Your task to perform on an android device: What's the weather? Image 0: 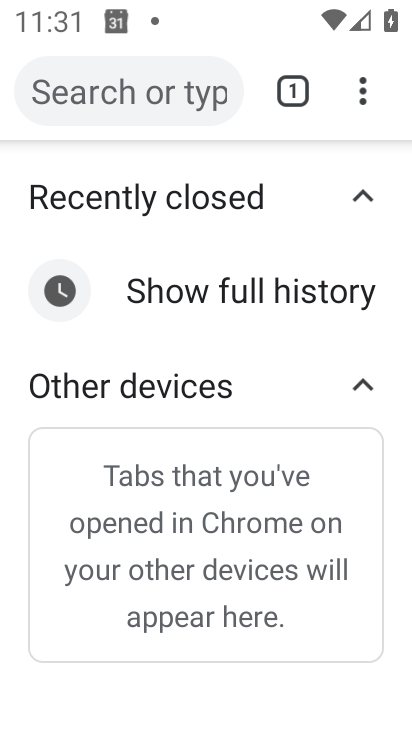
Step 0: drag from (208, 539) to (253, 4)
Your task to perform on an android device: What's the weather? Image 1: 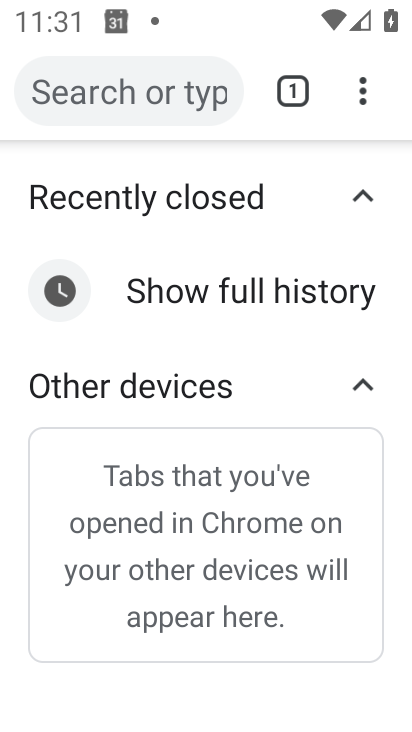
Step 1: press home button
Your task to perform on an android device: What's the weather? Image 2: 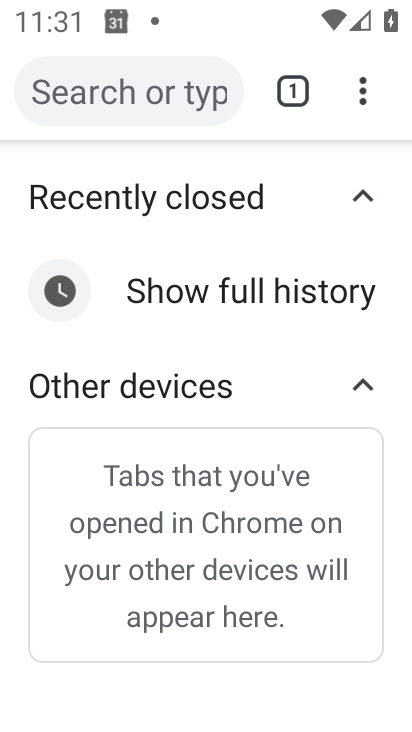
Step 2: drag from (253, 4) to (409, 728)
Your task to perform on an android device: What's the weather? Image 3: 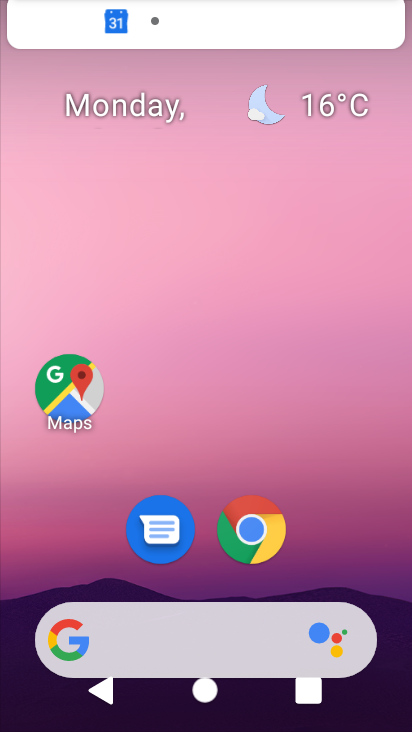
Step 3: drag from (221, 585) to (239, 164)
Your task to perform on an android device: What's the weather? Image 4: 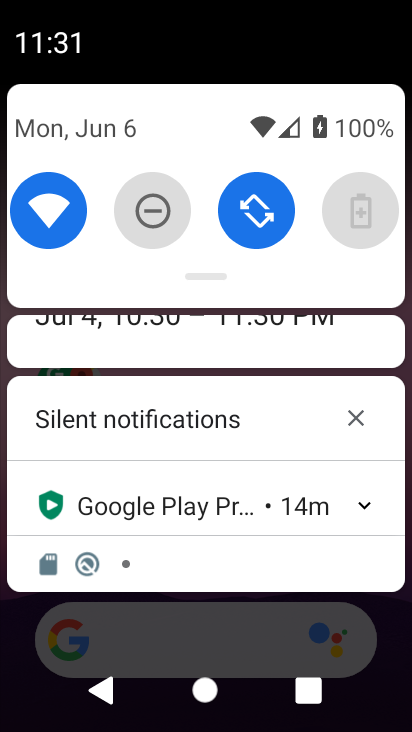
Step 4: click (261, 649)
Your task to perform on an android device: What's the weather? Image 5: 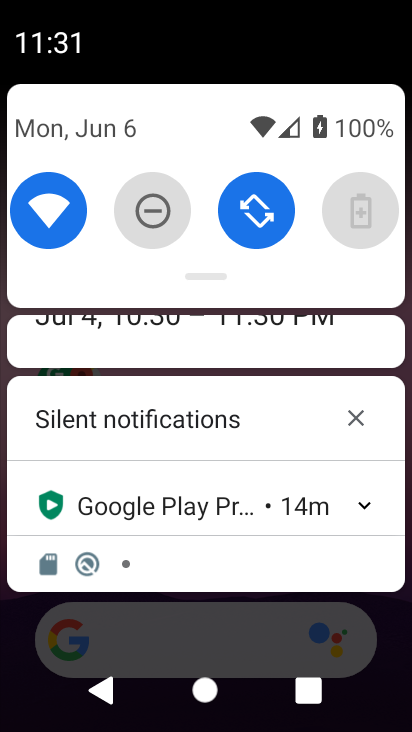
Step 5: press home button
Your task to perform on an android device: What's the weather? Image 6: 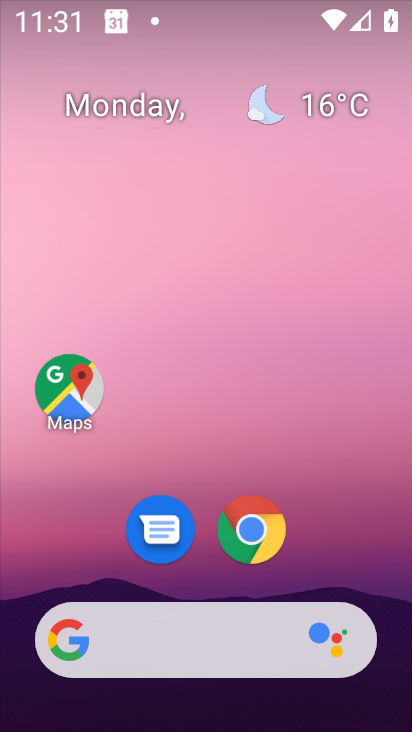
Step 6: drag from (192, 579) to (281, 83)
Your task to perform on an android device: What's the weather? Image 7: 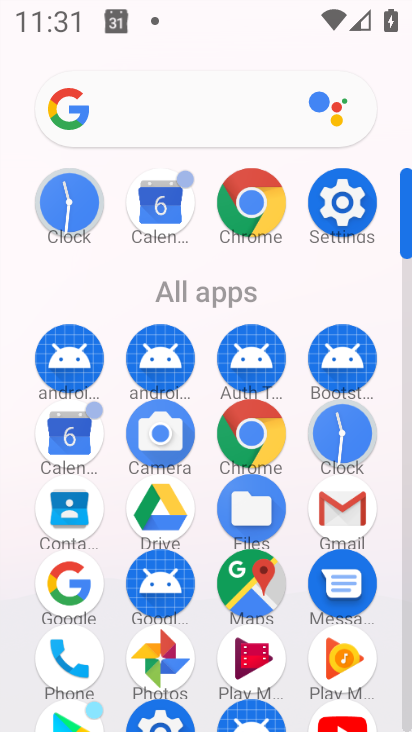
Step 7: click (256, 204)
Your task to perform on an android device: What's the weather? Image 8: 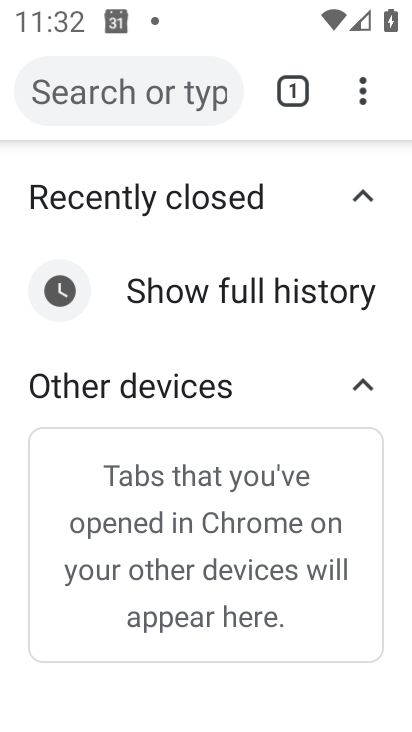
Step 8: click (143, 89)
Your task to perform on an android device: What's the weather? Image 9: 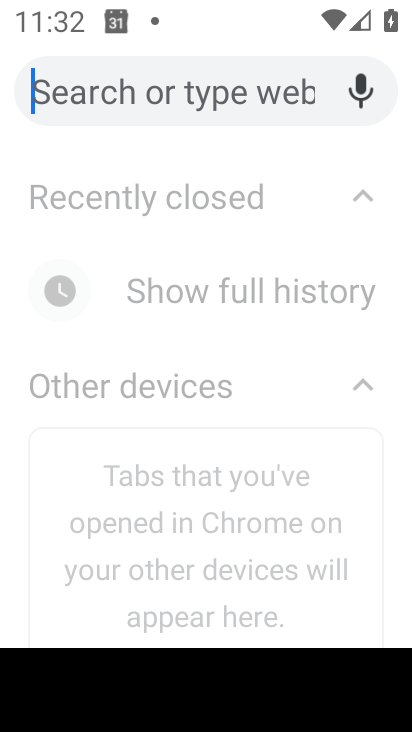
Step 9: type "weather"
Your task to perform on an android device: What's the weather? Image 10: 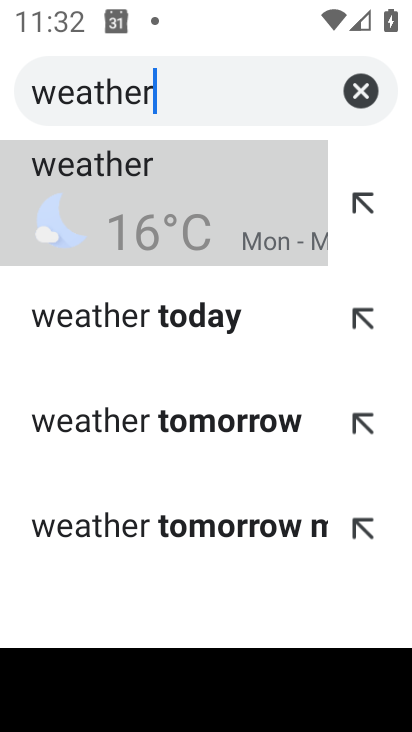
Step 10: click (170, 199)
Your task to perform on an android device: What's the weather? Image 11: 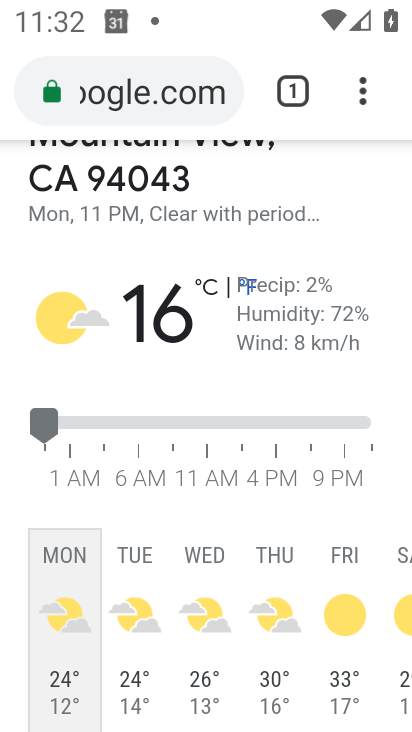
Step 11: task complete